Your task to perform on an android device: turn off airplane mode Image 0: 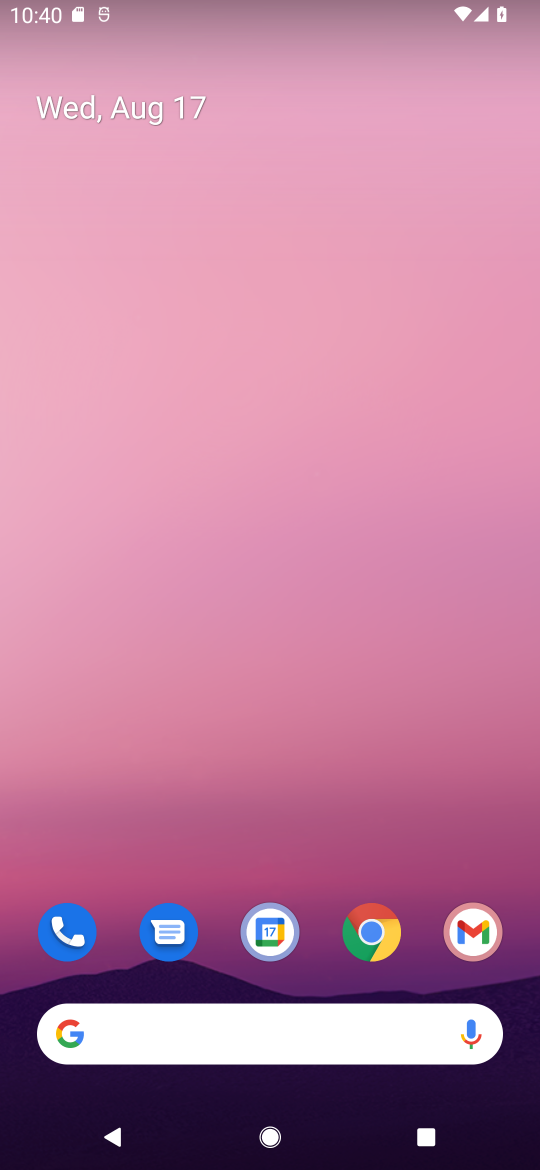
Step 0: drag from (331, 715) to (351, 66)
Your task to perform on an android device: turn off airplane mode Image 1: 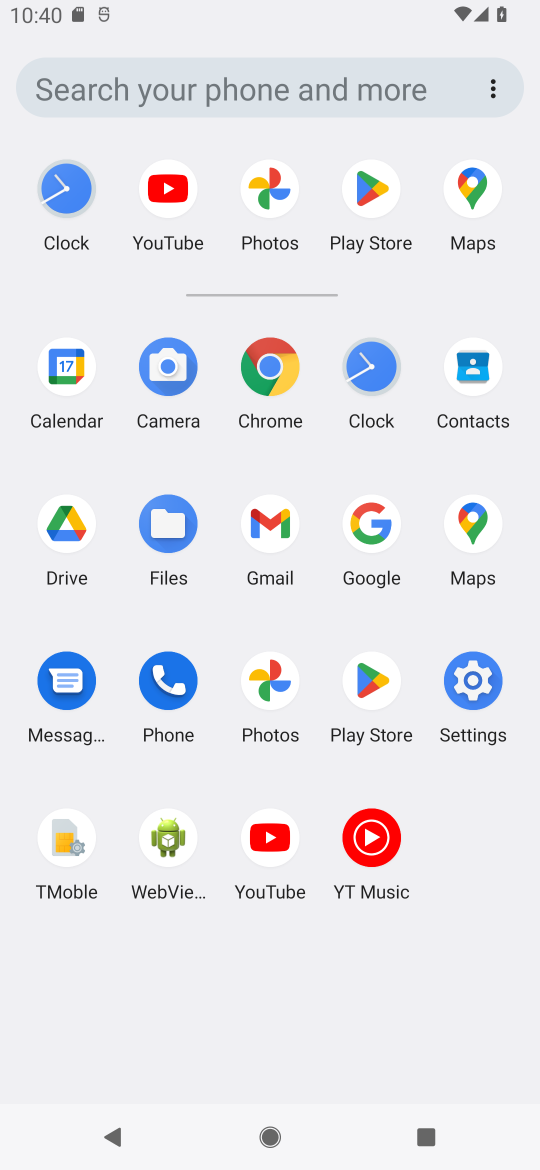
Step 1: click (474, 685)
Your task to perform on an android device: turn off airplane mode Image 2: 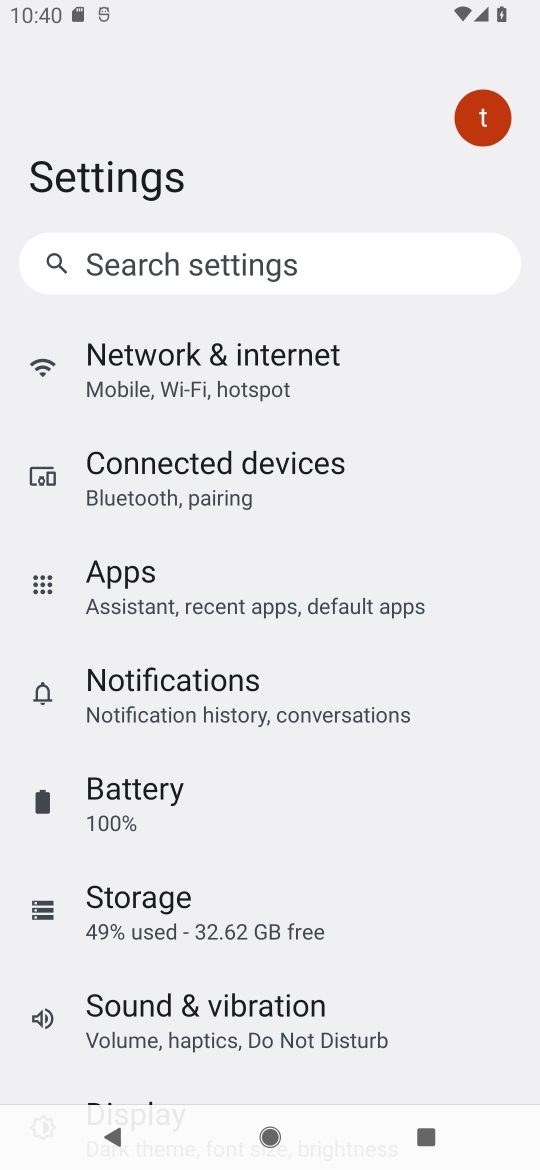
Step 2: click (157, 369)
Your task to perform on an android device: turn off airplane mode Image 3: 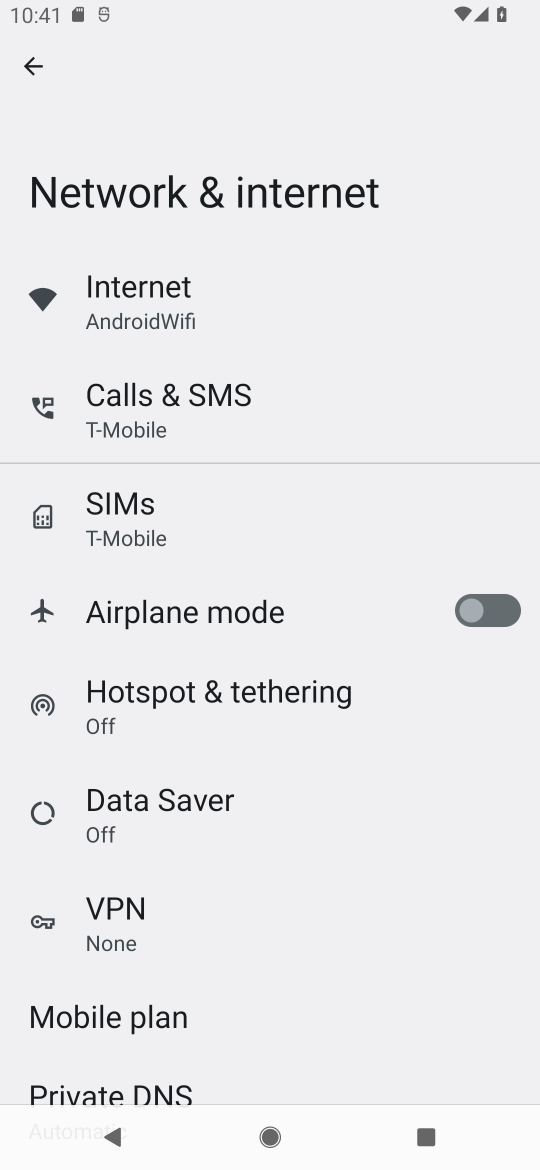
Step 3: task complete